Your task to perform on an android device: open wifi settings Image 0: 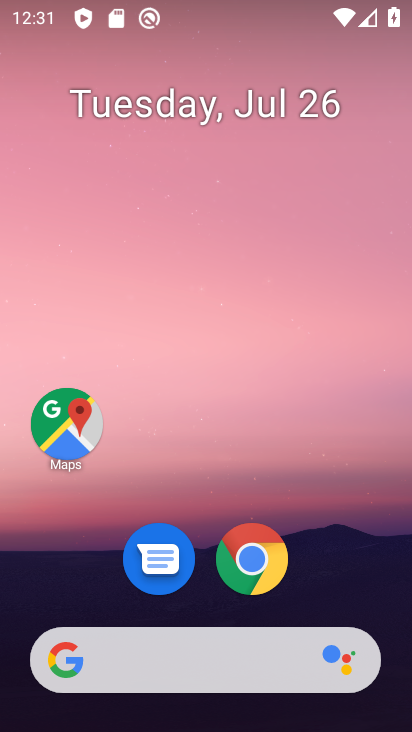
Step 0: drag from (156, 16) to (167, 589)
Your task to perform on an android device: open wifi settings Image 1: 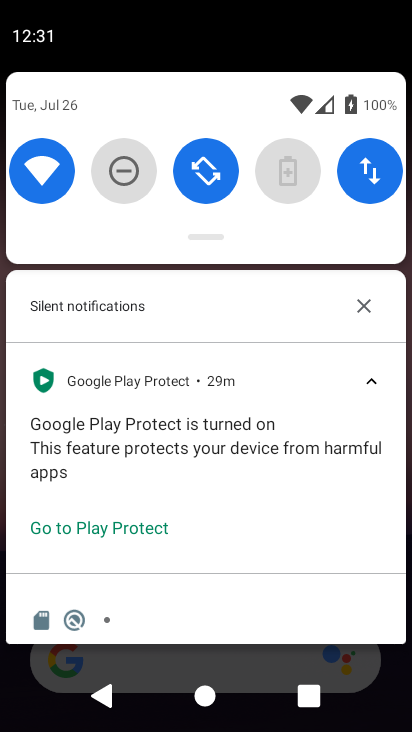
Step 1: click (56, 178)
Your task to perform on an android device: open wifi settings Image 2: 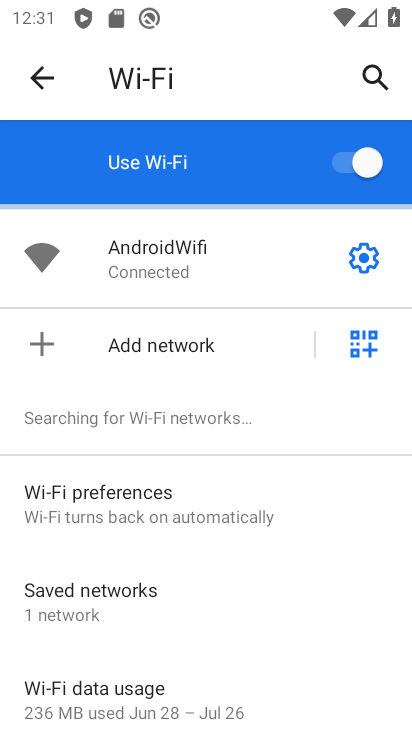
Step 2: task complete